Your task to perform on an android device: Go to Google Image 0: 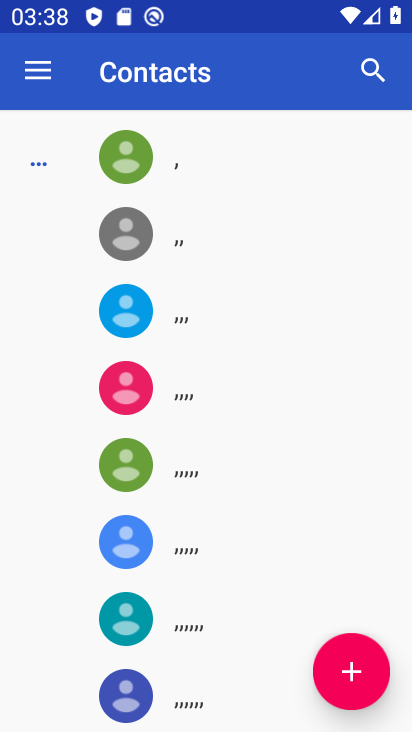
Step 0: press home button
Your task to perform on an android device: Go to Google Image 1: 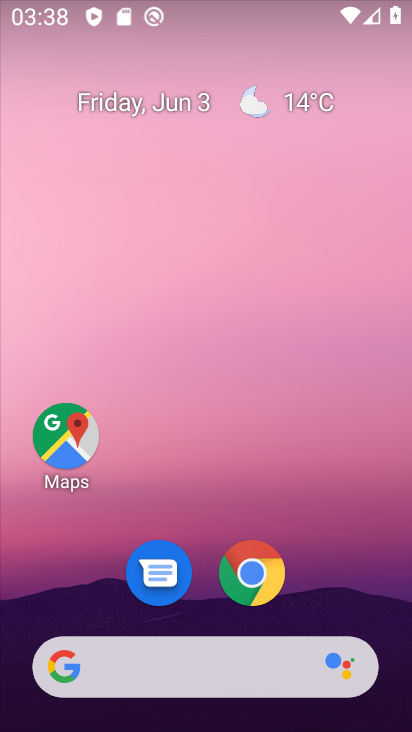
Step 1: drag from (150, 660) to (230, 59)
Your task to perform on an android device: Go to Google Image 2: 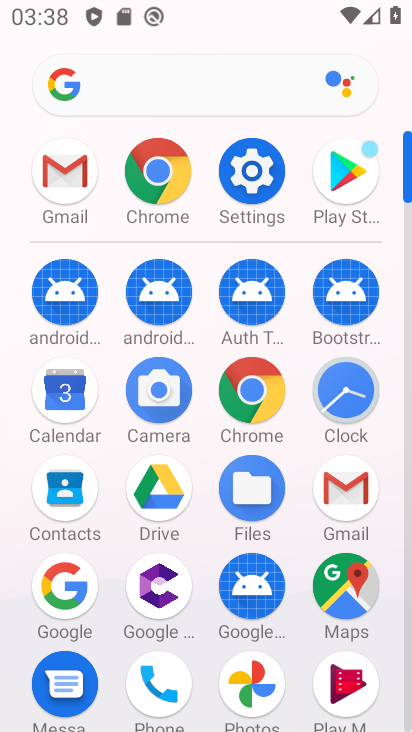
Step 2: click (251, 393)
Your task to perform on an android device: Go to Google Image 3: 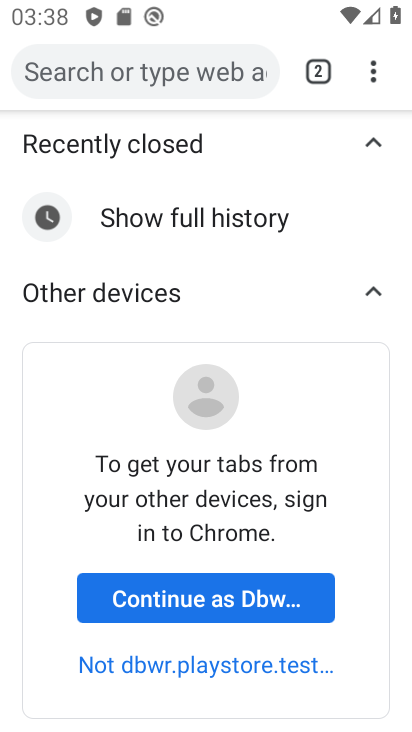
Step 3: press back button
Your task to perform on an android device: Go to Google Image 4: 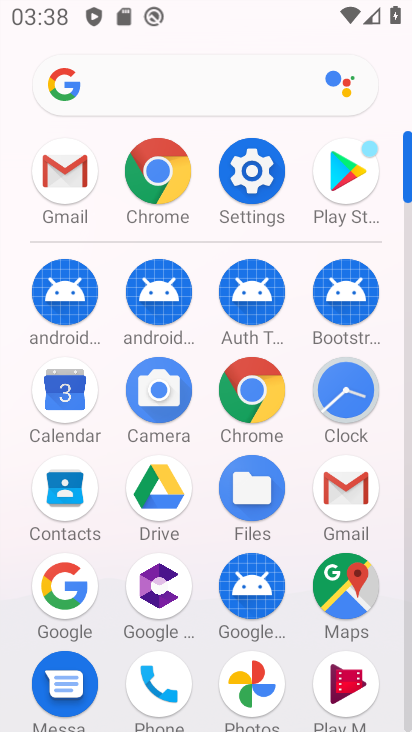
Step 4: click (246, 380)
Your task to perform on an android device: Go to Google Image 5: 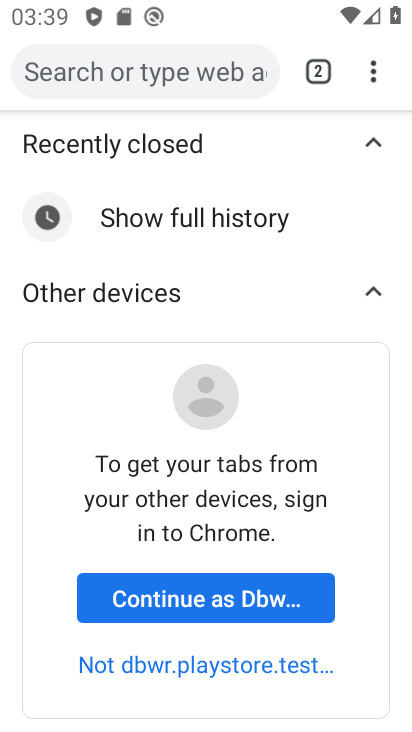
Step 5: task complete